Your task to perform on an android device: set the stopwatch Image 0: 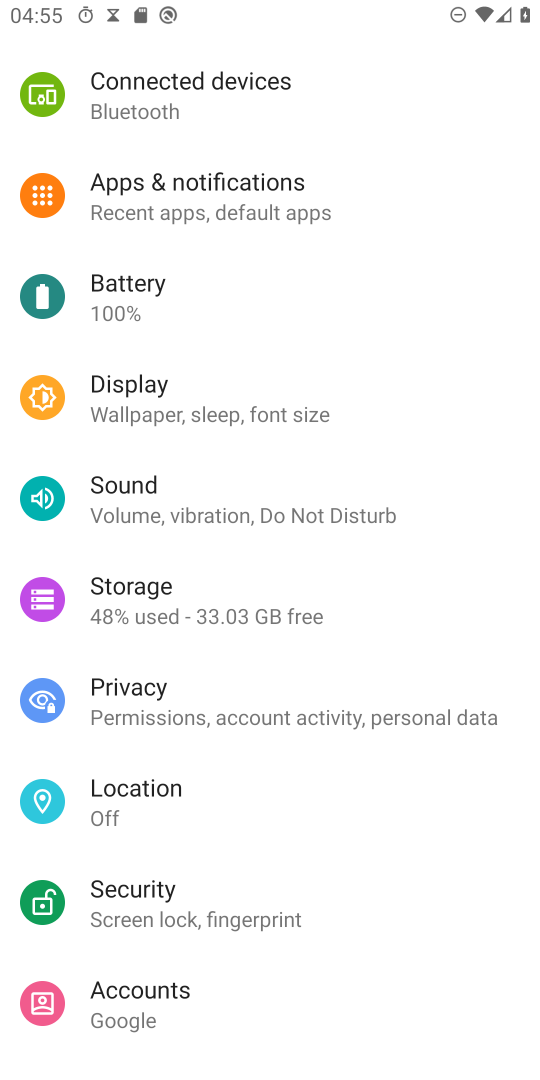
Step 0: press home button
Your task to perform on an android device: set the stopwatch Image 1: 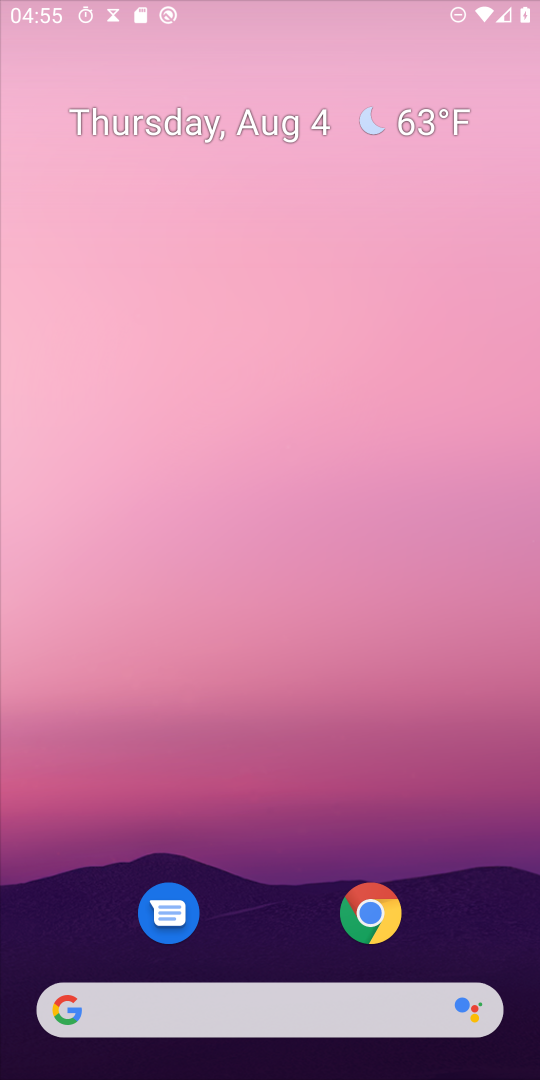
Step 1: drag from (286, 1021) to (402, 109)
Your task to perform on an android device: set the stopwatch Image 2: 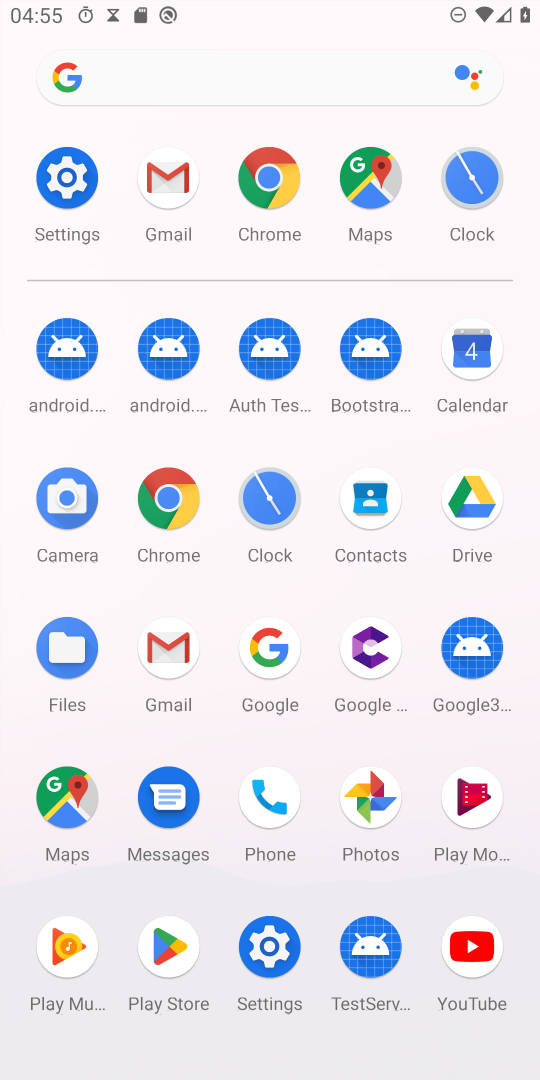
Step 2: click (256, 494)
Your task to perform on an android device: set the stopwatch Image 3: 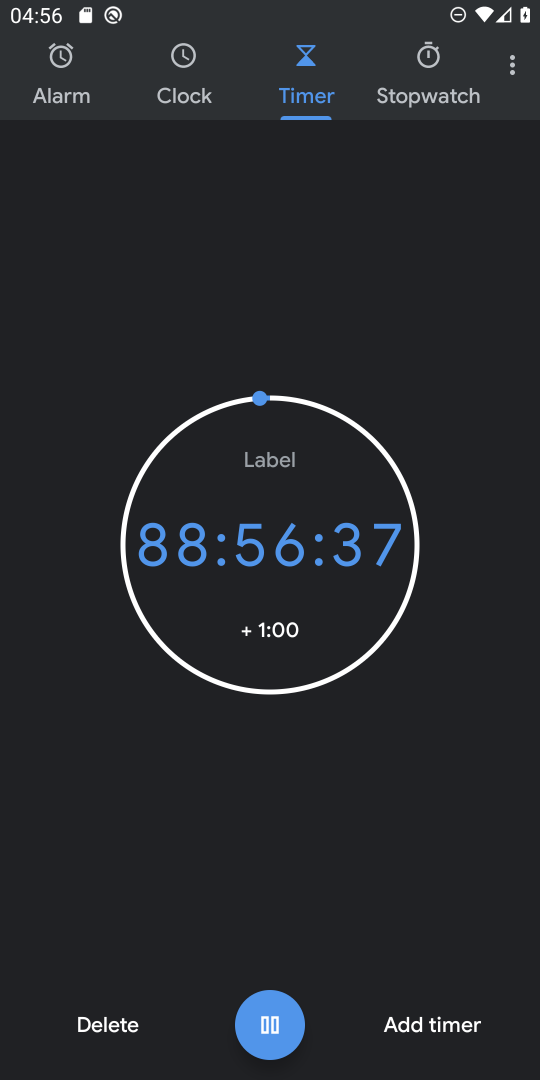
Step 3: click (440, 72)
Your task to perform on an android device: set the stopwatch Image 4: 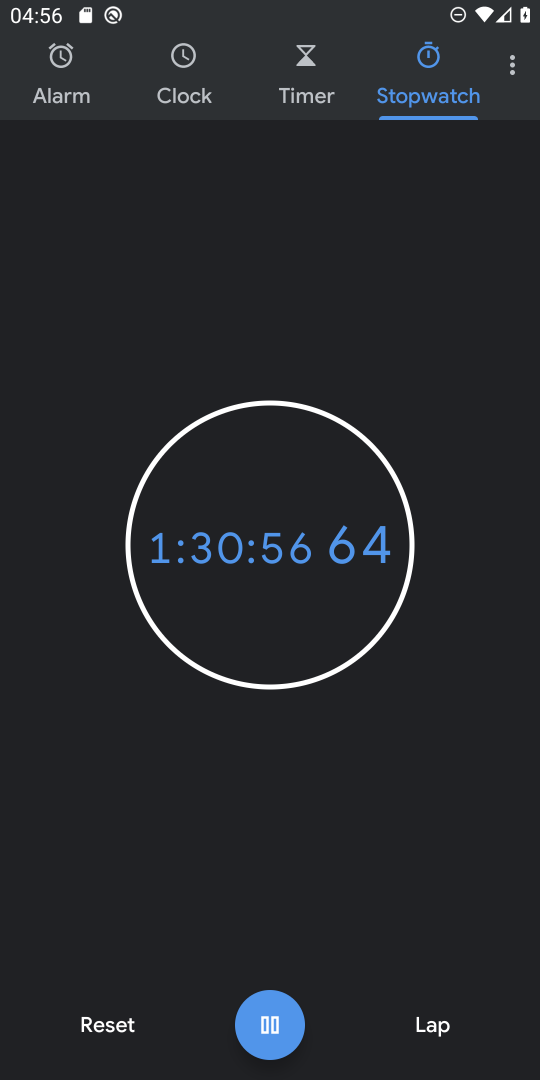
Step 4: task complete